Your task to perform on an android device: turn on showing notifications on the lock screen Image 0: 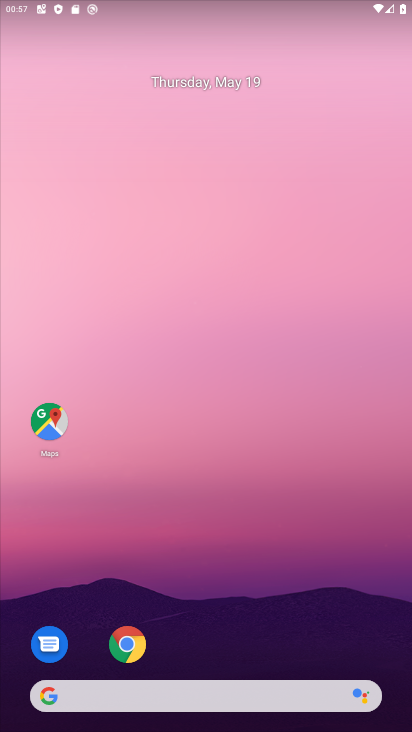
Step 0: drag from (338, 594) to (343, 84)
Your task to perform on an android device: turn on showing notifications on the lock screen Image 1: 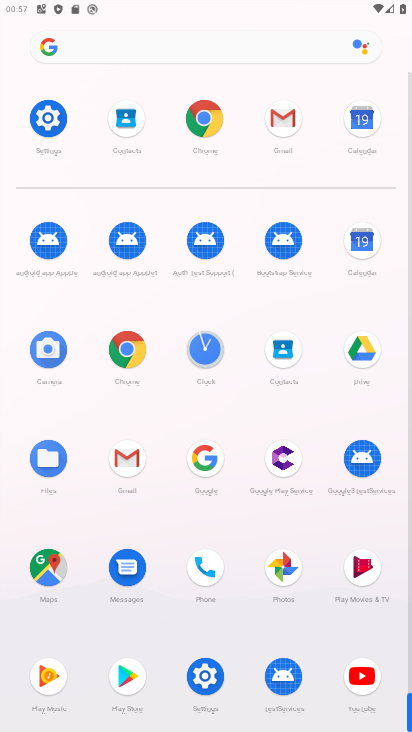
Step 1: click (197, 680)
Your task to perform on an android device: turn on showing notifications on the lock screen Image 2: 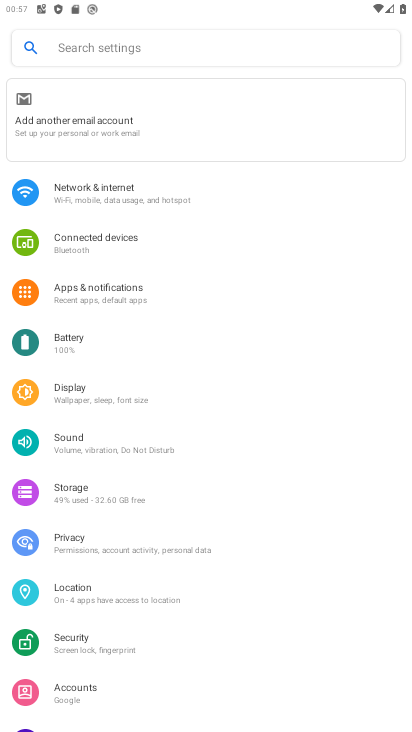
Step 2: click (119, 287)
Your task to perform on an android device: turn on showing notifications on the lock screen Image 3: 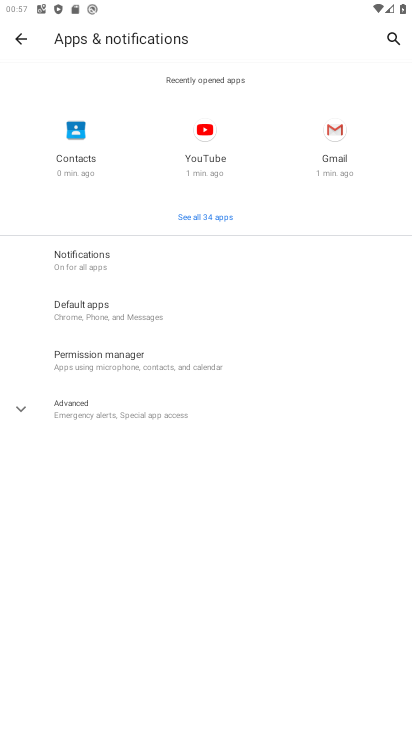
Step 3: click (139, 259)
Your task to perform on an android device: turn on showing notifications on the lock screen Image 4: 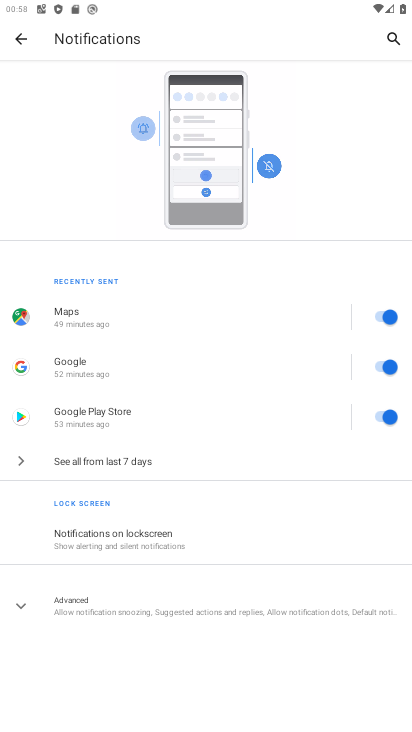
Step 4: click (221, 523)
Your task to perform on an android device: turn on showing notifications on the lock screen Image 5: 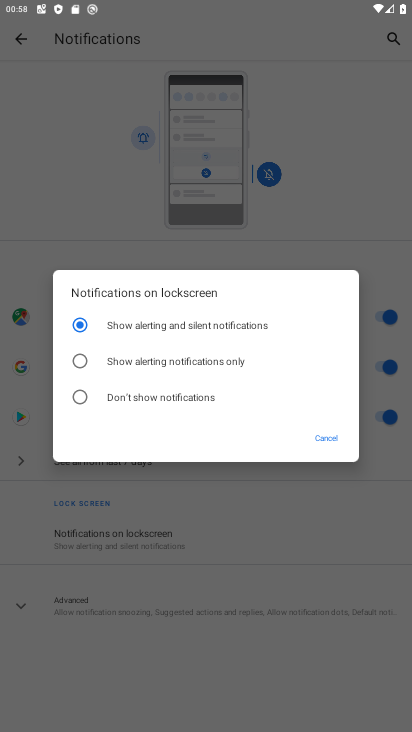
Step 5: task complete